Your task to perform on an android device: Go to location settings Image 0: 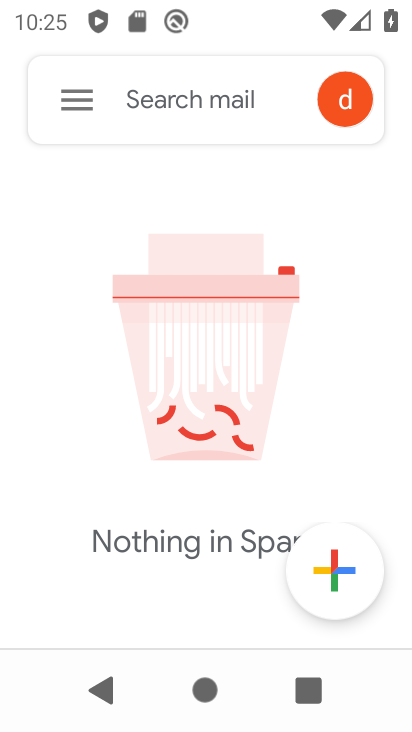
Step 0: press home button
Your task to perform on an android device: Go to location settings Image 1: 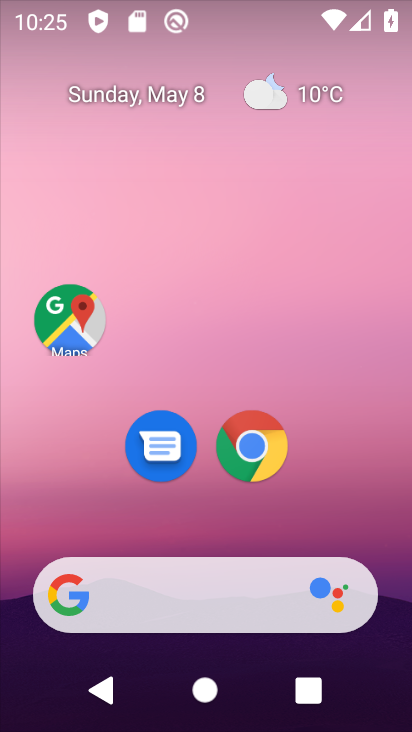
Step 1: drag from (353, 587) to (345, 2)
Your task to perform on an android device: Go to location settings Image 2: 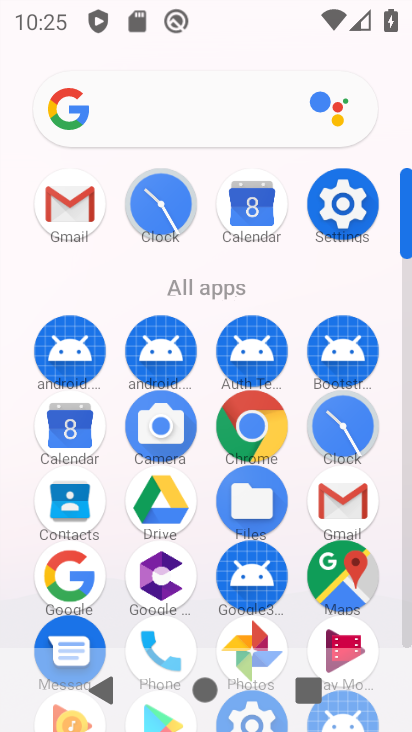
Step 2: click (337, 205)
Your task to perform on an android device: Go to location settings Image 3: 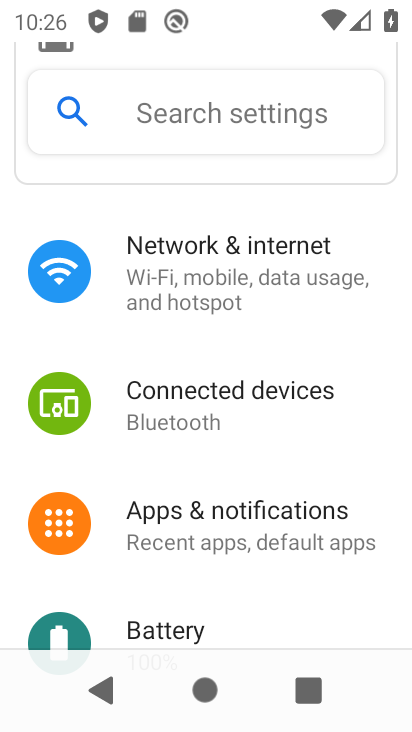
Step 3: drag from (372, 539) to (392, 240)
Your task to perform on an android device: Go to location settings Image 4: 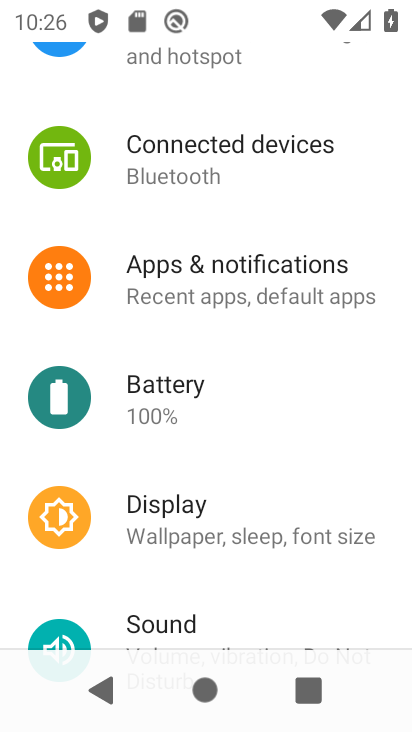
Step 4: drag from (292, 483) to (305, 178)
Your task to perform on an android device: Go to location settings Image 5: 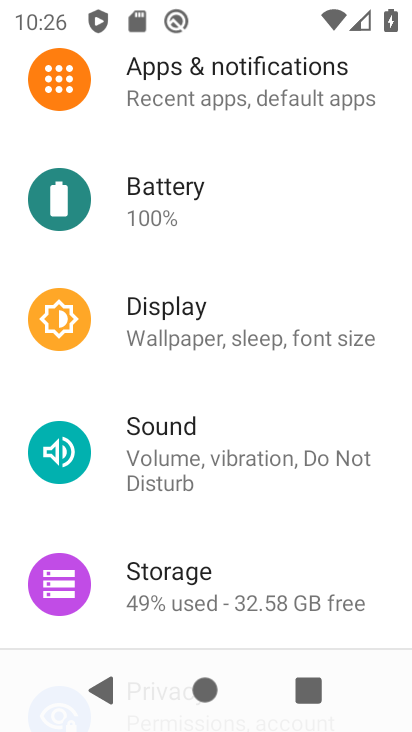
Step 5: drag from (227, 530) to (276, 148)
Your task to perform on an android device: Go to location settings Image 6: 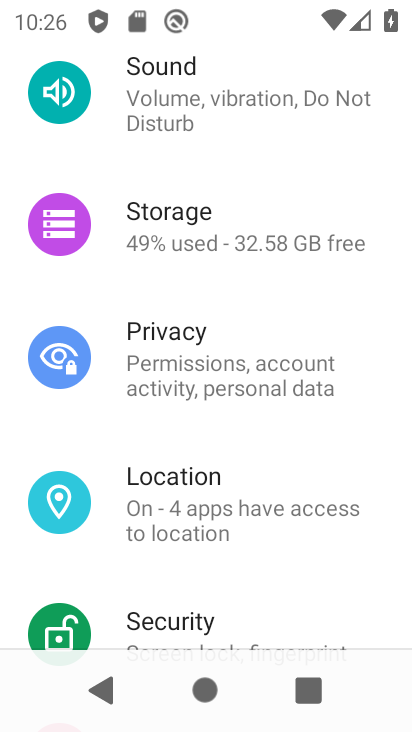
Step 6: click (196, 498)
Your task to perform on an android device: Go to location settings Image 7: 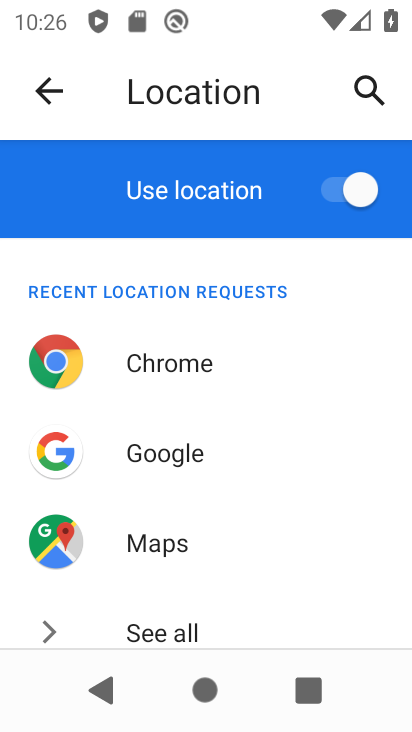
Step 7: task complete